Your task to perform on an android device: check android version Image 0: 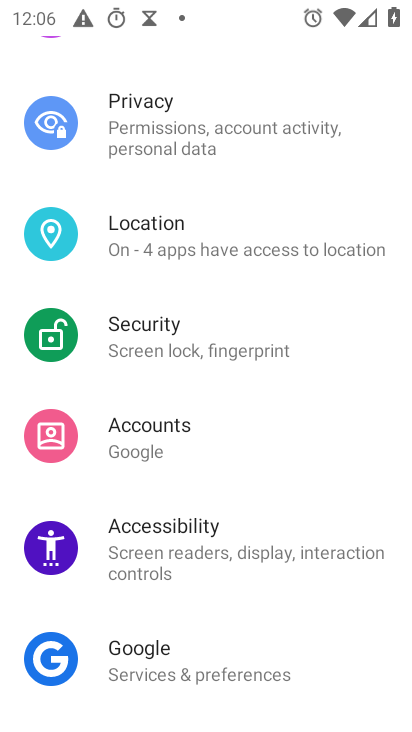
Step 0: drag from (233, 579) to (403, 132)
Your task to perform on an android device: check android version Image 1: 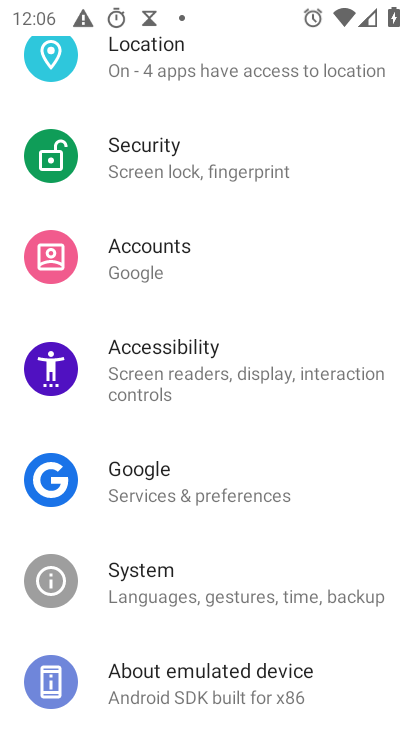
Step 1: click (225, 680)
Your task to perform on an android device: check android version Image 2: 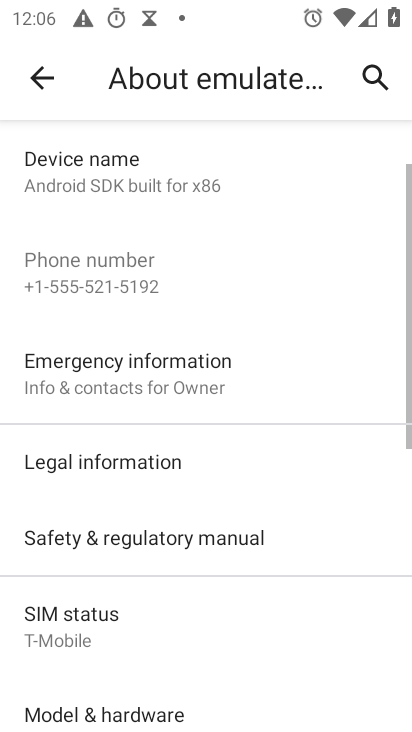
Step 2: drag from (190, 628) to (309, 183)
Your task to perform on an android device: check android version Image 3: 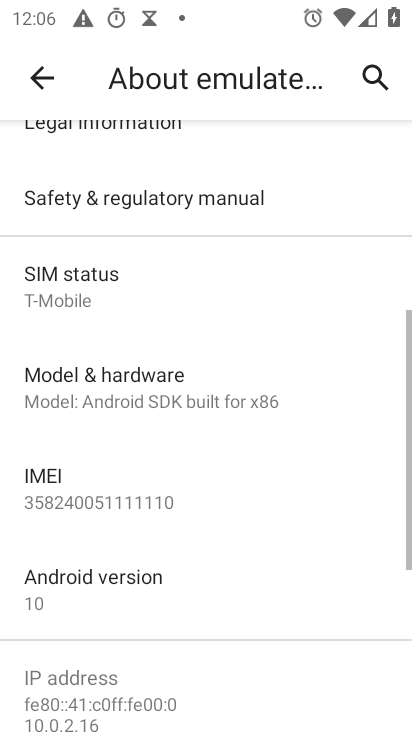
Step 3: click (106, 587)
Your task to perform on an android device: check android version Image 4: 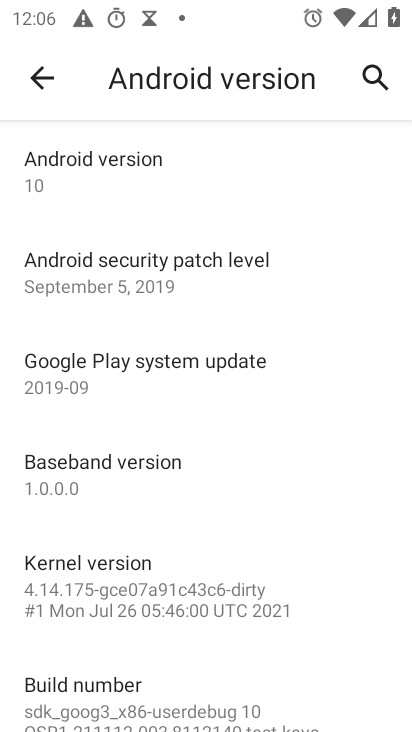
Step 4: task complete